Your task to perform on an android device: Open Reddit.com Image 0: 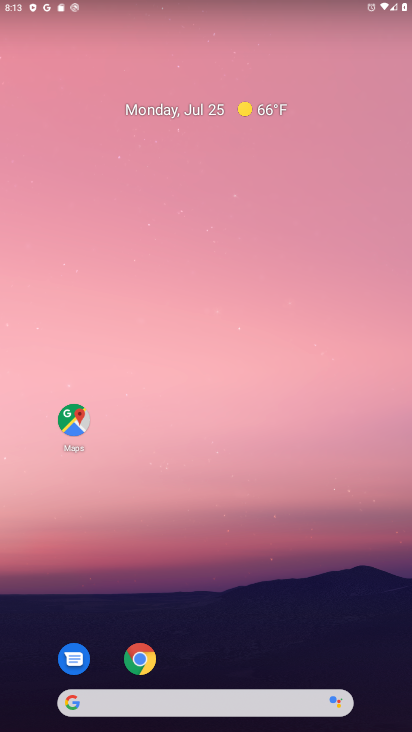
Step 0: click (146, 662)
Your task to perform on an android device: Open Reddit.com Image 1: 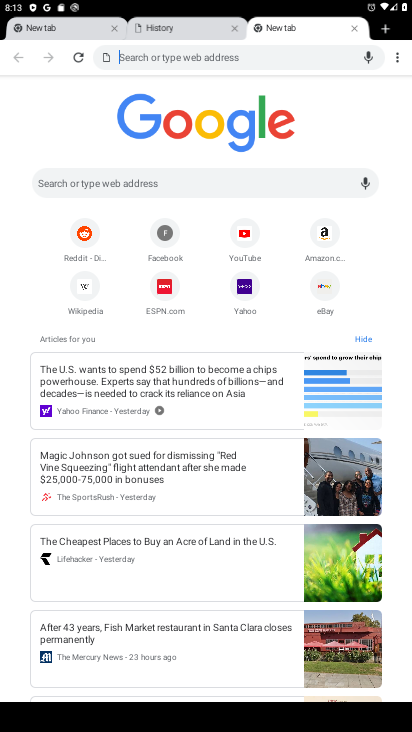
Step 1: click (94, 245)
Your task to perform on an android device: Open Reddit.com Image 2: 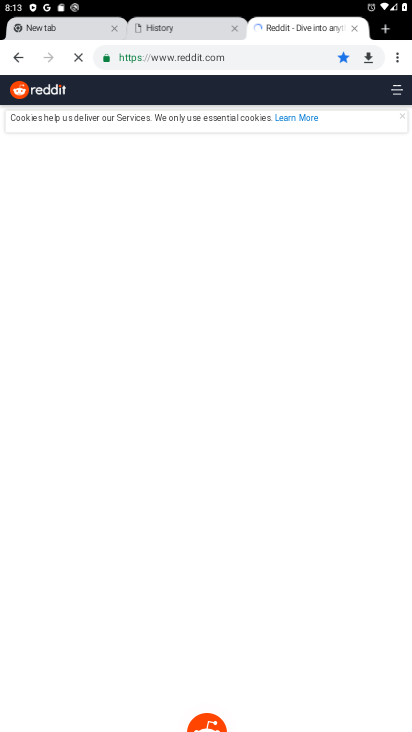
Step 2: task complete